Your task to perform on an android device: Go to display settings Image 0: 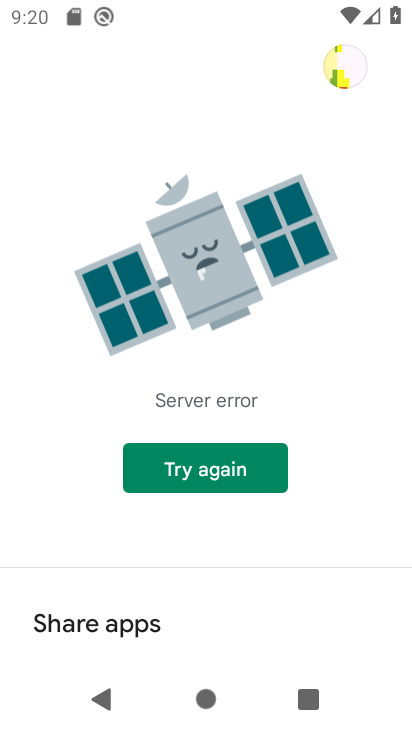
Step 0: press home button
Your task to perform on an android device: Go to display settings Image 1: 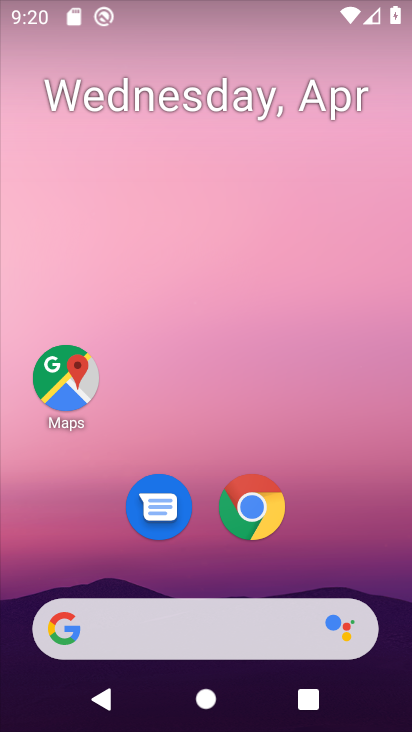
Step 1: drag from (310, 526) to (309, 180)
Your task to perform on an android device: Go to display settings Image 2: 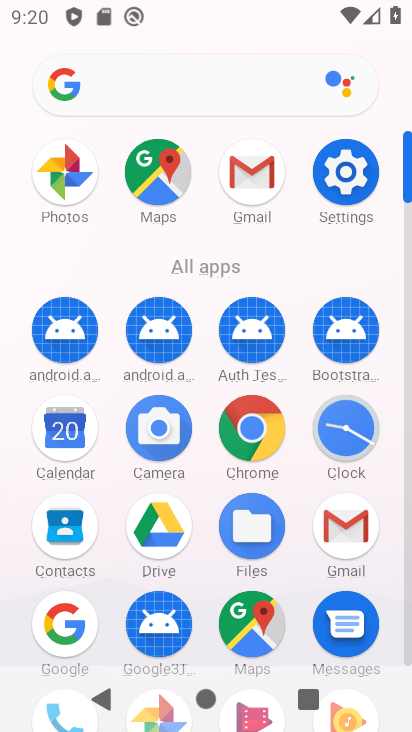
Step 2: click (358, 190)
Your task to perform on an android device: Go to display settings Image 3: 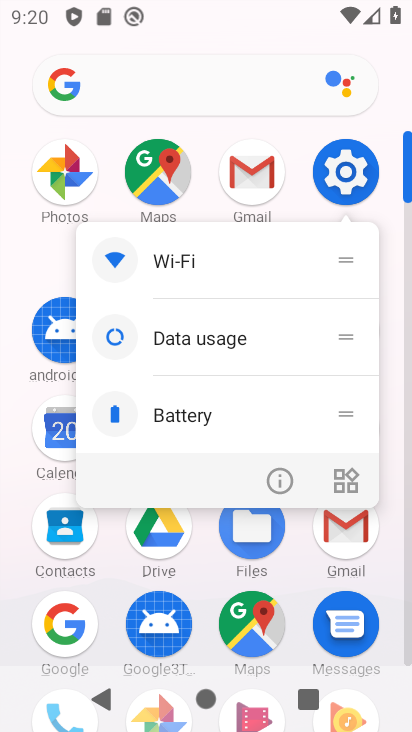
Step 3: click (345, 180)
Your task to perform on an android device: Go to display settings Image 4: 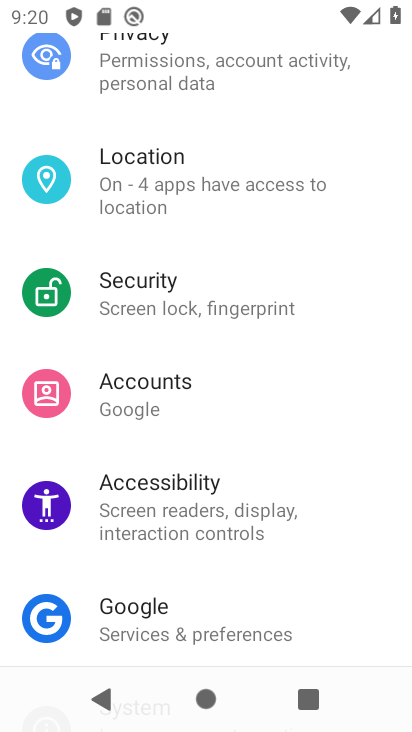
Step 4: drag from (326, 168) to (337, 536)
Your task to perform on an android device: Go to display settings Image 5: 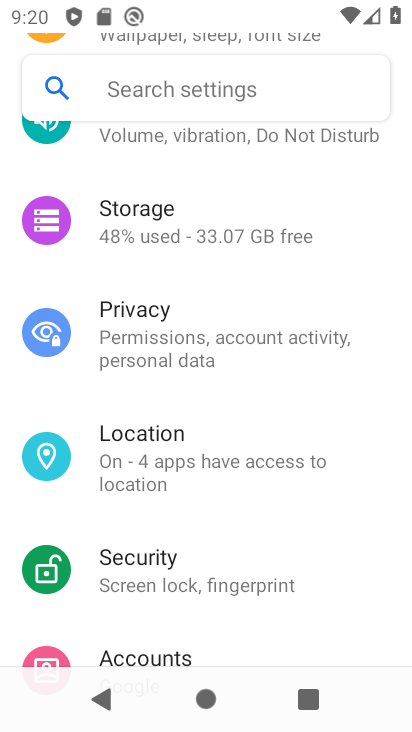
Step 5: drag from (259, 290) to (272, 545)
Your task to perform on an android device: Go to display settings Image 6: 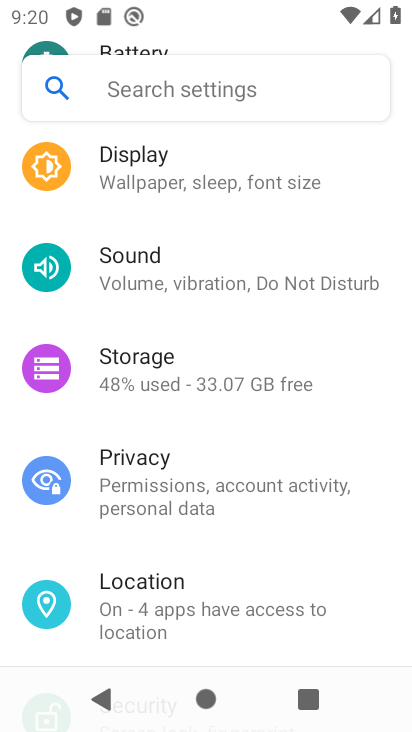
Step 6: click (200, 179)
Your task to perform on an android device: Go to display settings Image 7: 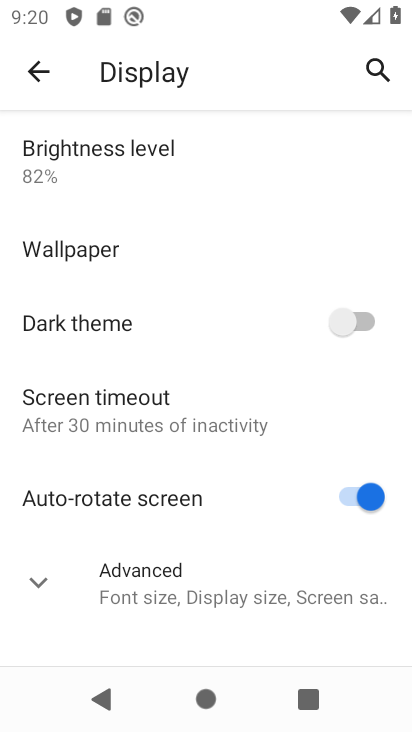
Step 7: click (32, 584)
Your task to perform on an android device: Go to display settings Image 8: 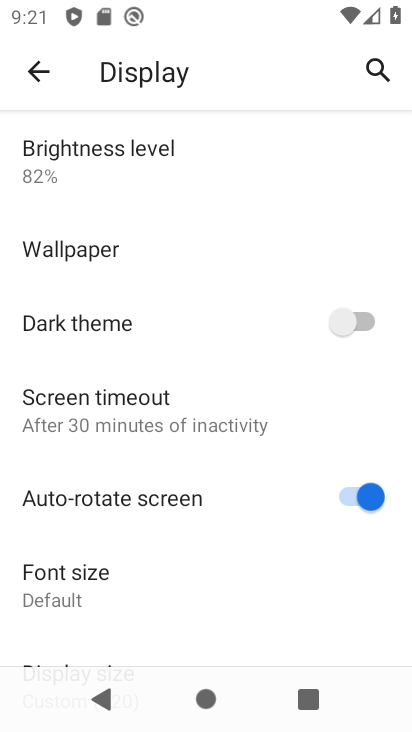
Step 8: task complete